Your task to perform on an android device: toggle priority inbox in the gmail app Image 0: 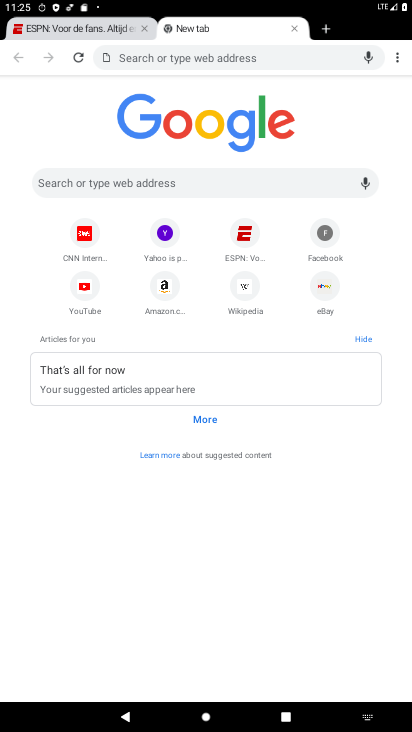
Step 0: press home button
Your task to perform on an android device: toggle priority inbox in the gmail app Image 1: 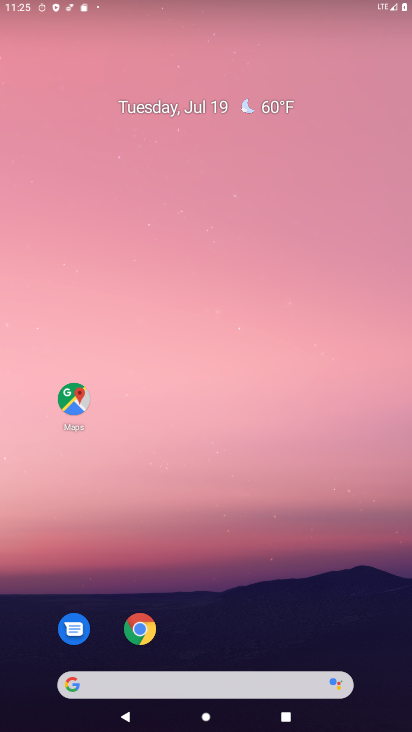
Step 1: drag from (287, 515) to (273, 78)
Your task to perform on an android device: toggle priority inbox in the gmail app Image 2: 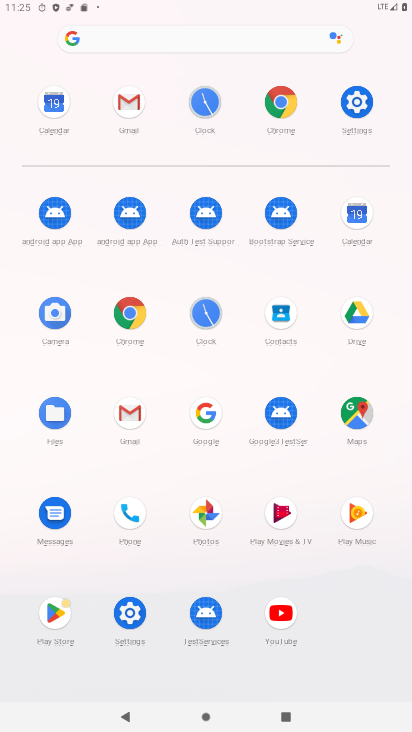
Step 2: click (120, 111)
Your task to perform on an android device: toggle priority inbox in the gmail app Image 3: 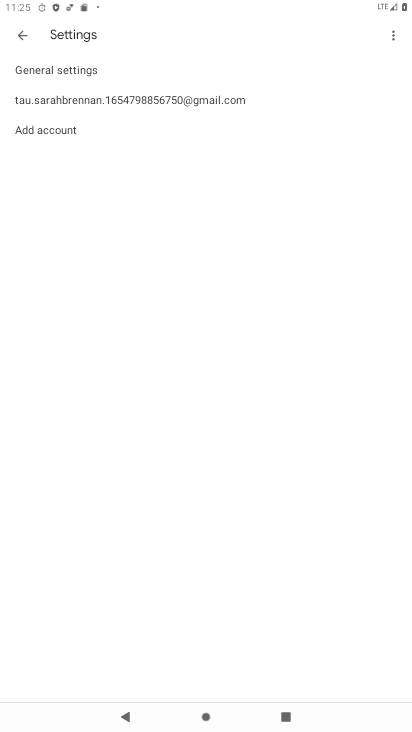
Step 3: click (111, 102)
Your task to perform on an android device: toggle priority inbox in the gmail app Image 4: 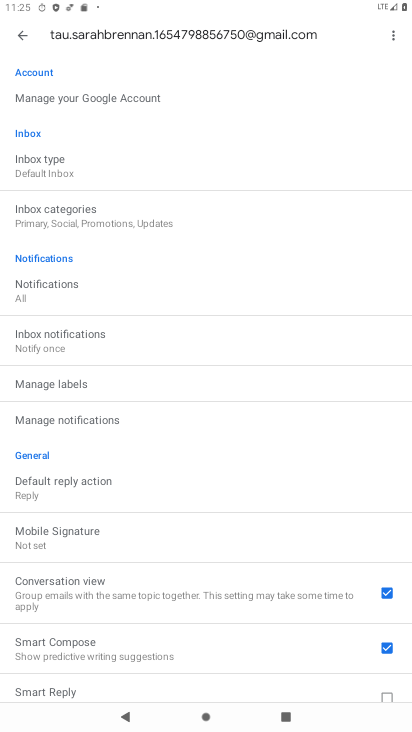
Step 4: click (71, 170)
Your task to perform on an android device: toggle priority inbox in the gmail app Image 5: 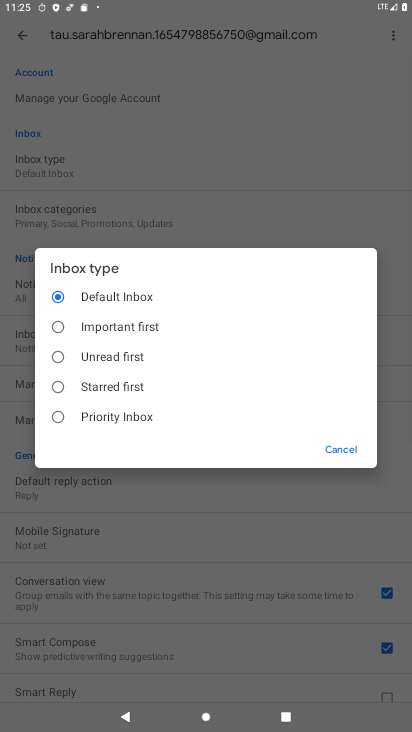
Step 5: click (118, 420)
Your task to perform on an android device: toggle priority inbox in the gmail app Image 6: 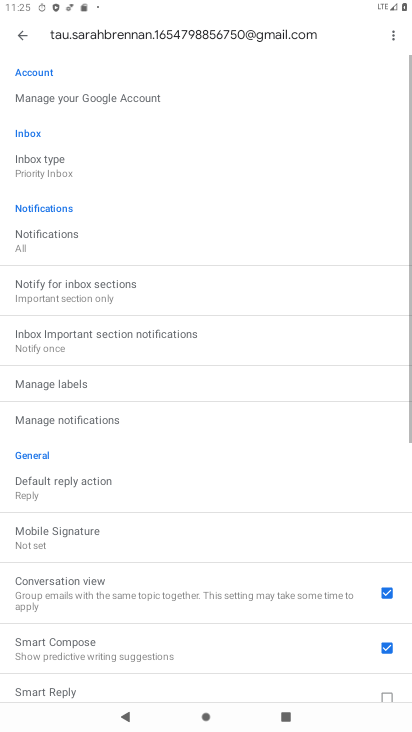
Step 6: task complete